Your task to perform on an android device: Clear all items from cart on newegg. Search for "lenovo thinkpad" on newegg, select the first entry, and add it to the cart. Image 0: 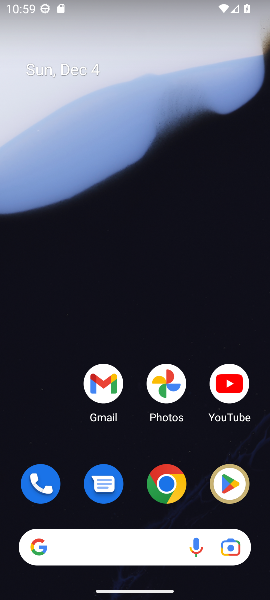
Step 0: click (164, 485)
Your task to perform on an android device: Clear all items from cart on newegg. Search for "lenovo thinkpad" on newegg, select the first entry, and add it to the cart. Image 1: 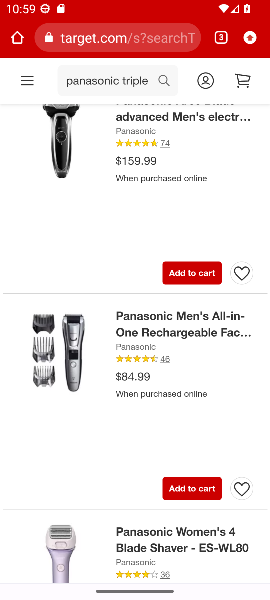
Step 1: click (100, 40)
Your task to perform on an android device: Clear all items from cart on newegg. Search for "lenovo thinkpad" on newegg, select the first entry, and add it to the cart. Image 2: 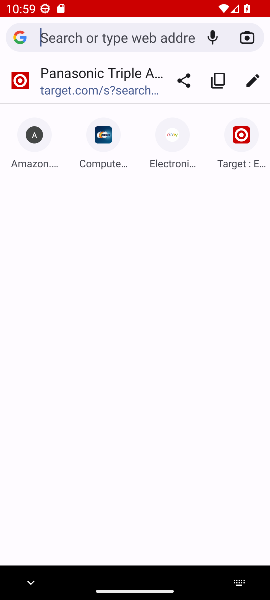
Step 2: click (101, 162)
Your task to perform on an android device: Clear all items from cart on newegg. Search for "lenovo thinkpad" on newegg, select the first entry, and add it to the cart. Image 3: 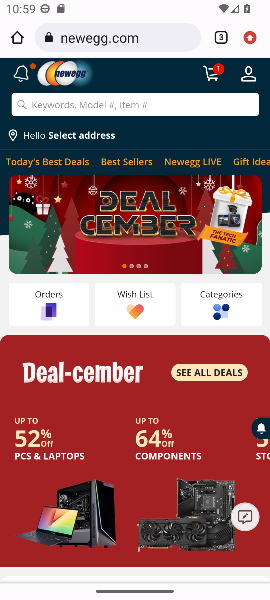
Step 3: click (213, 75)
Your task to perform on an android device: Clear all items from cart on newegg. Search for "lenovo thinkpad" on newegg, select the first entry, and add it to the cart. Image 4: 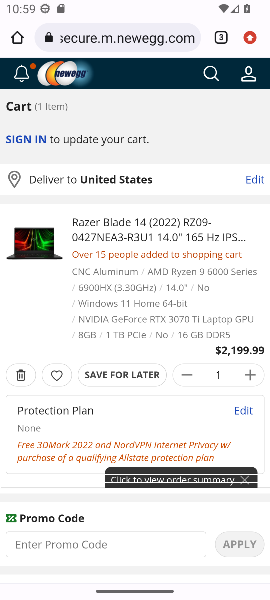
Step 4: click (17, 375)
Your task to perform on an android device: Clear all items from cart on newegg. Search for "lenovo thinkpad" on newegg, select the first entry, and add it to the cart. Image 5: 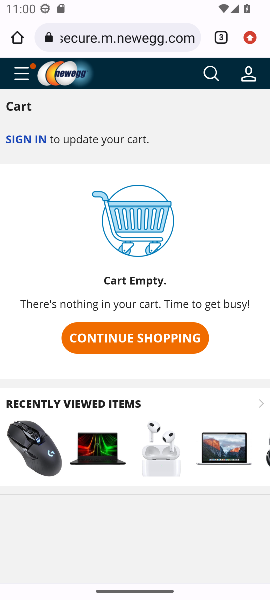
Step 5: click (212, 76)
Your task to perform on an android device: Clear all items from cart on newegg. Search for "lenovo thinkpad" on newegg, select the first entry, and add it to the cart. Image 6: 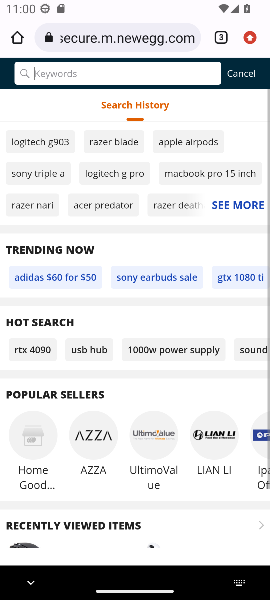
Step 6: type "lenovo thinkpad"
Your task to perform on an android device: Clear all items from cart on newegg. Search for "lenovo thinkpad" on newegg, select the first entry, and add it to the cart. Image 7: 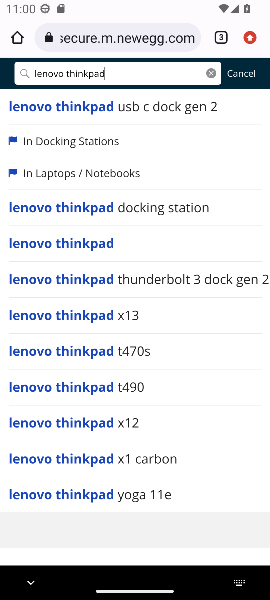
Step 7: click (77, 248)
Your task to perform on an android device: Clear all items from cart on newegg. Search for "lenovo thinkpad" on newegg, select the first entry, and add it to the cart. Image 8: 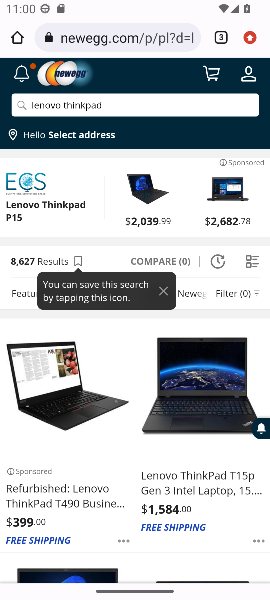
Step 8: drag from (115, 434) to (119, 290)
Your task to perform on an android device: Clear all items from cart on newegg. Search for "lenovo thinkpad" on newegg, select the first entry, and add it to the cart. Image 9: 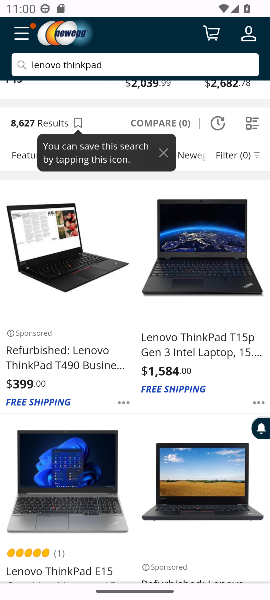
Step 9: click (29, 343)
Your task to perform on an android device: Clear all items from cart on newegg. Search for "lenovo thinkpad" on newegg, select the first entry, and add it to the cart. Image 10: 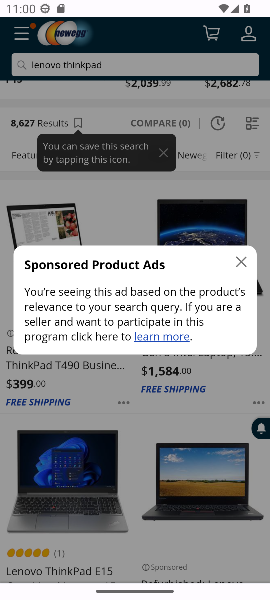
Step 10: click (22, 374)
Your task to perform on an android device: Clear all items from cart on newegg. Search for "lenovo thinkpad" on newegg, select the first entry, and add it to the cart. Image 11: 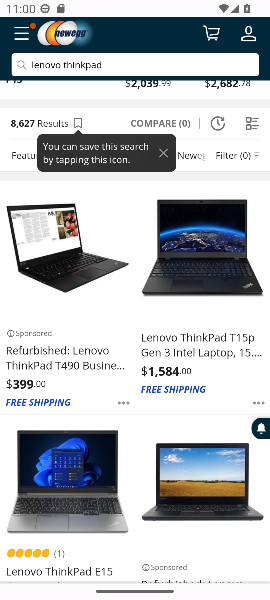
Step 11: click (35, 365)
Your task to perform on an android device: Clear all items from cart on newegg. Search for "lenovo thinkpad" on newegg, select the first entry, and add it to the cart. Image 12: 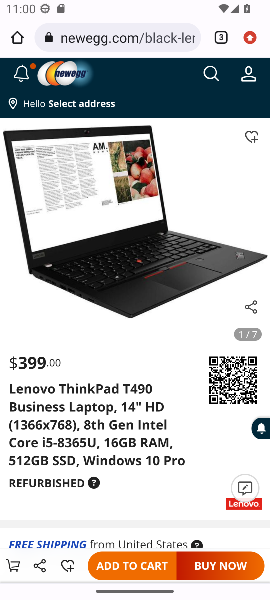
Step 12: click (143, 571)
Your task to perform on an android device: Clear all items from cart on newegg. Search for "lenovo thinkpad" on newegg, select the first entry, and add it to the cart. Image 13: 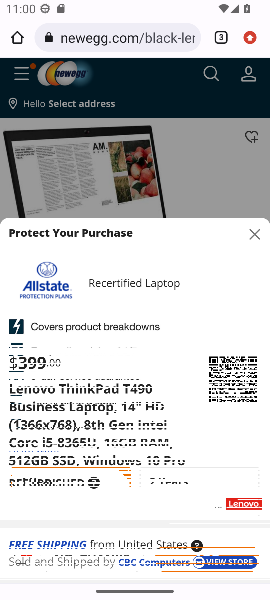
Step 13: task complete